Your task to perform on an android device: move an email to a new category in the gmail app Image 0: 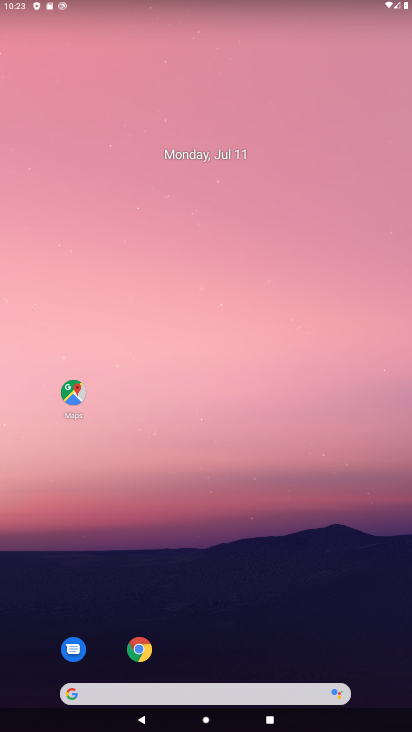
Step 0: drag from (206, 686) to (156, 211)
Your task to perform on an android device: move an email to a new category in the gmail app Image 1: 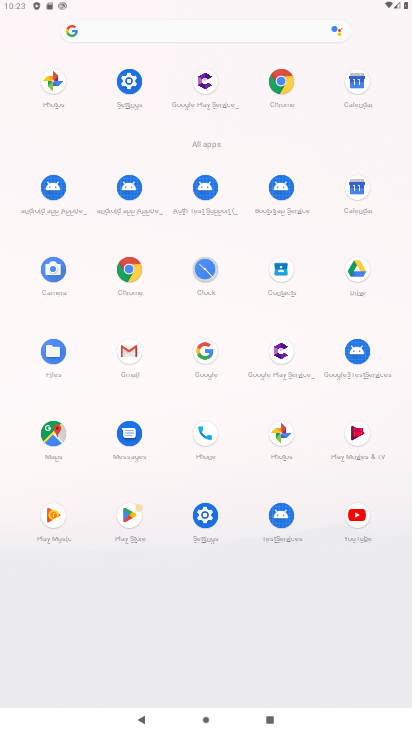
Step 1: click (128, 348)
Your task to perform on an android device: move an email to a new category in the gmail app Image 2: 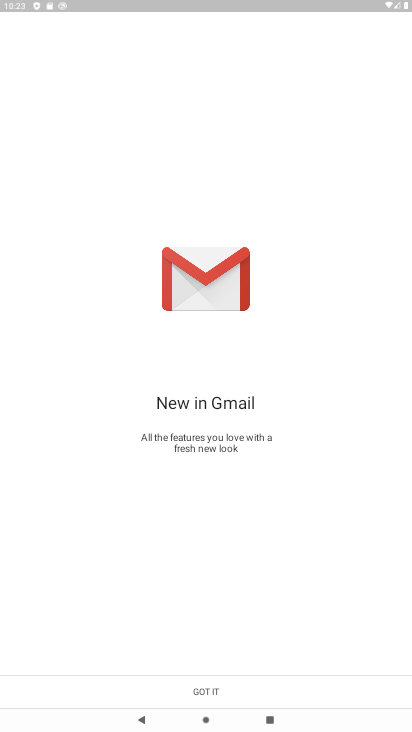
Step 2: click (214, 689)
Your task to perform on an android device: move an email to a new category in the gmail app Image 3: 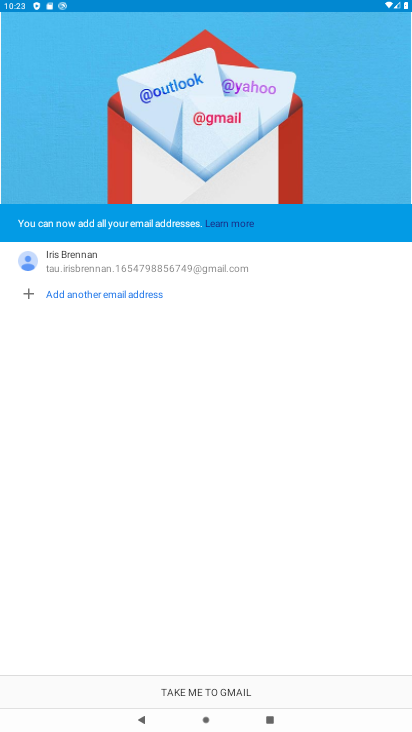
Step 3: click (214, 689)
Your task to perform on an android device: move an email to a new category in the gmail app Image 4: 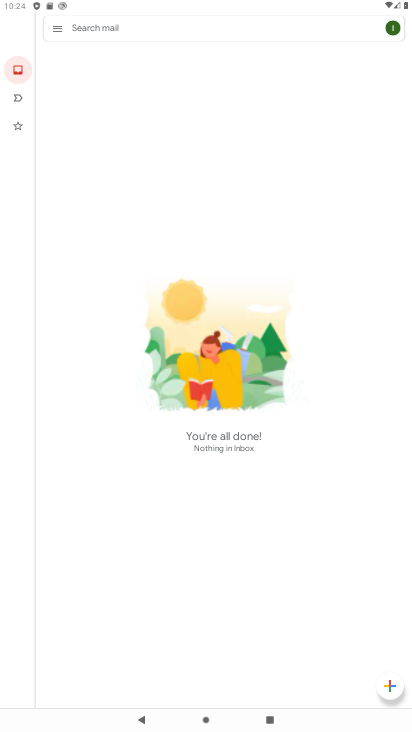
Step 4: click (58, 29)
Your task to perform on an android device: move an email to a new category in the gmail app Image 5: 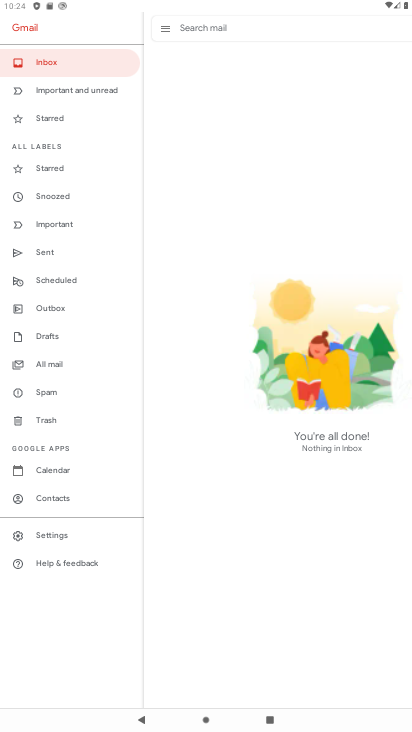
Step 5: click (54, 362)
Your task to perform on an android device: move an email to a new category in the gmail app Image 6: 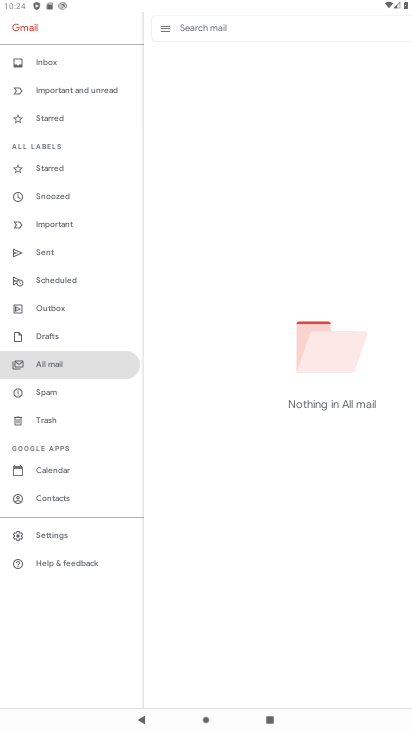
Step 6: click (67, 88)
Your task to perform on an android device: move an email to a new category in the gmail app Image 7: 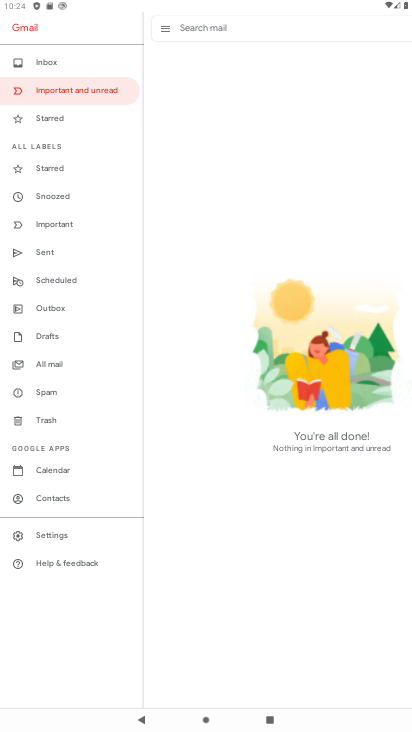
Step 7: click (45, 119)
Your task to perform on an android device: move an email to a new category in the gmail app Image 8: 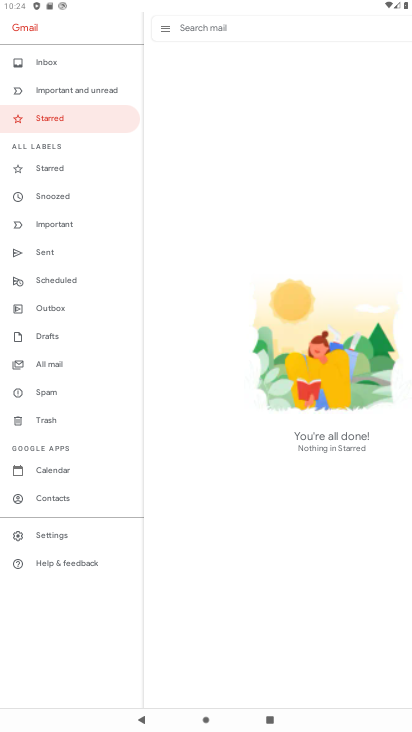
Step 8: click (62, 175)
Your task to perform on an android device: move an email to a new category in the gmail app Image 9: 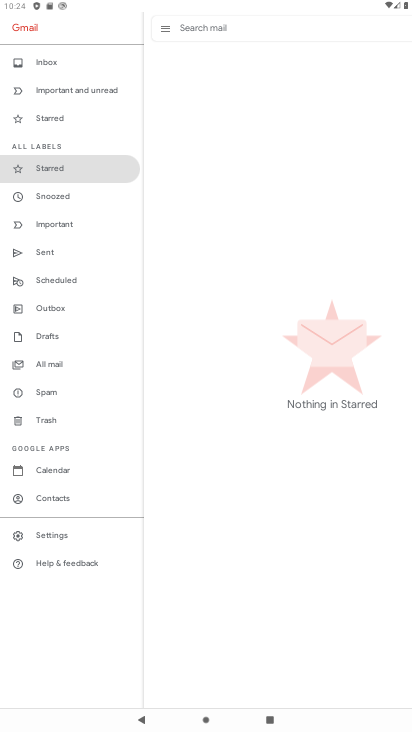
Step 9: click (71, 202)
Your task to perform on an android device: move an email to a new category in the gmail app Image 10: 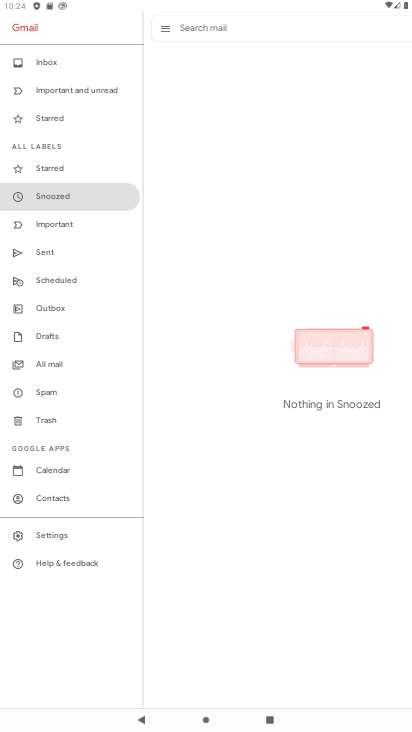
Step 10: click (68, 217)
Your task to perform on an android device: move an email to a new category in the gmail app Image 11: 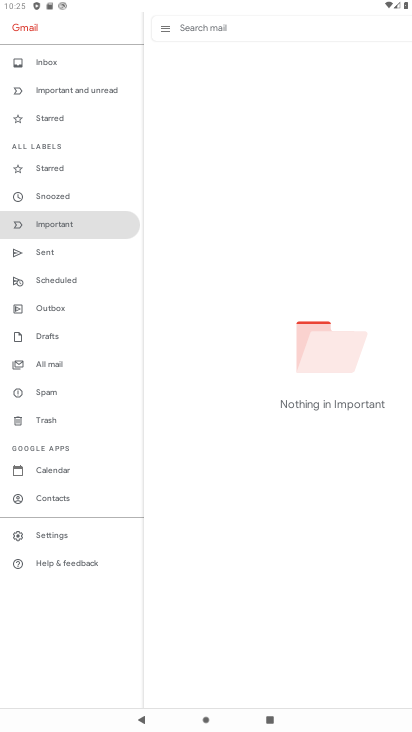
Step 11: task complete